Your task to perform on an android device: change the clock display to analog Image 0: 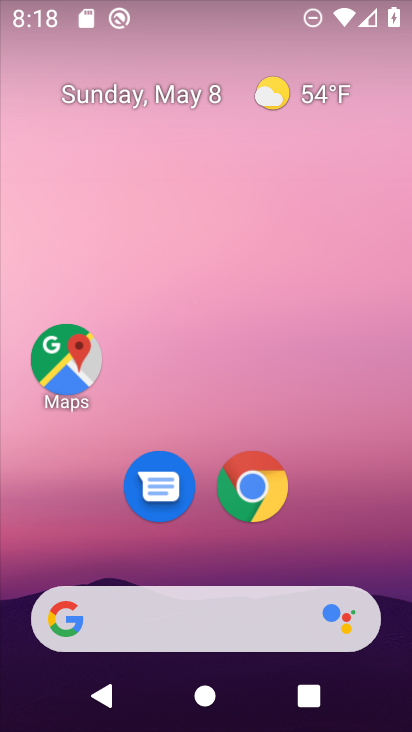
Step 0: drag from (170, 558) to (175, 261)
Your task to perform on an android device: change the clock display to analog Image 1: 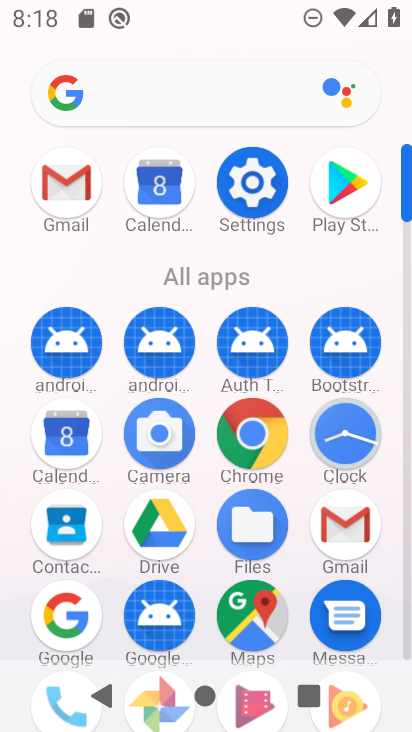
Step 1: click (350, 438)
Your task to perform on an android device: change the clock display to analog Image 2: 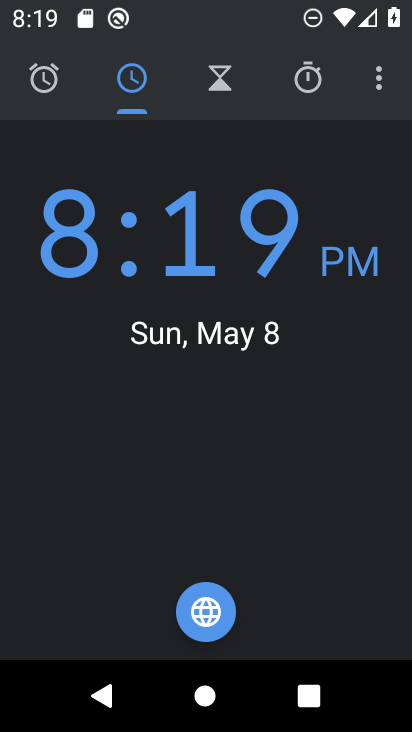
Step 2: click (377, 84)
Your task to perform on an android device: change the clock display to analog Image 3: 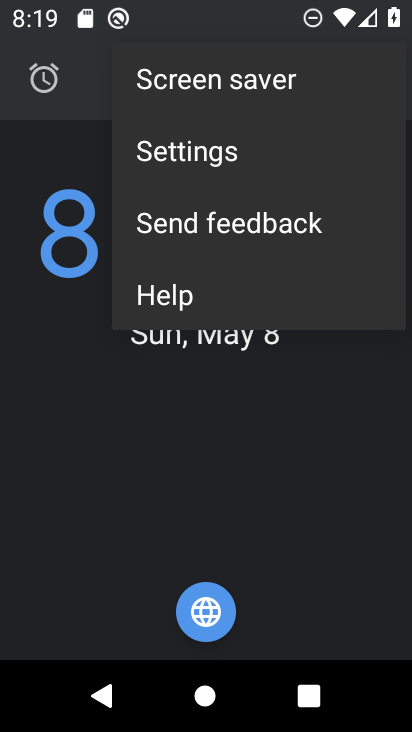
Step 3: click (177, 151)
Your task to perform on an android device: change the clock display to analog Image 4: 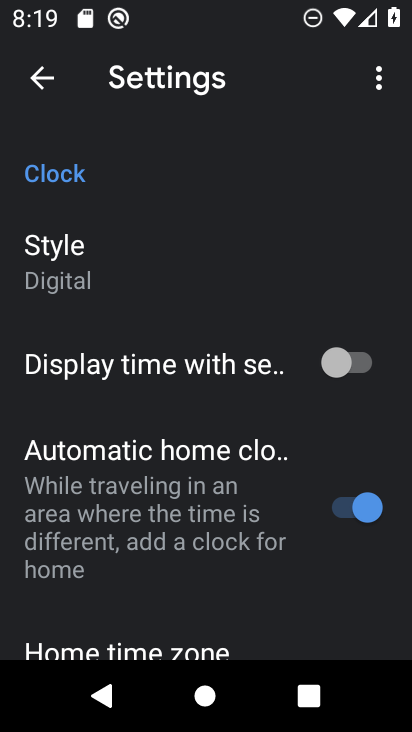
Step 4: click (69, 260)
Your task to perform on an android device: change the clock display to analog Image 5: 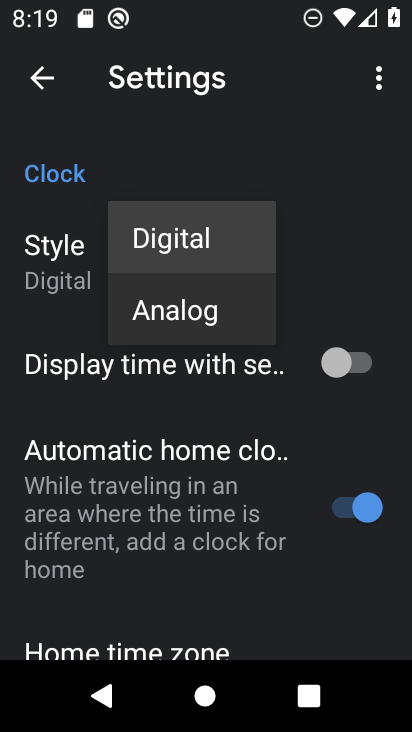
Step 5: click (188, 314)
Your task to perform on an android device: change the clock display to analog Image 6: 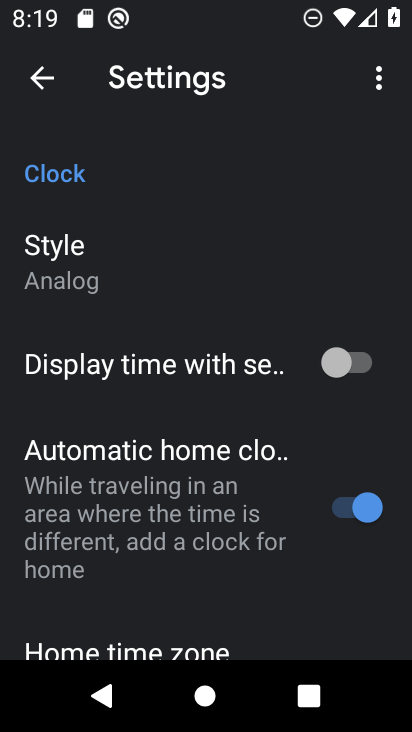
Step 6: task complete